Your task to perform on an android device: Go to battery settings Image 0: 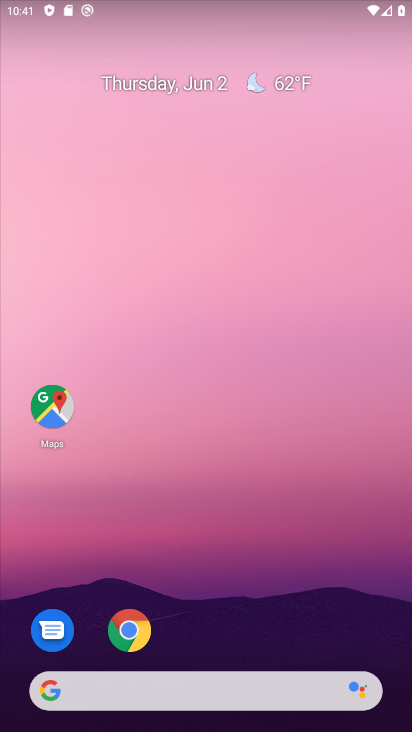
Step 0: press home button
Your task to perform on an android device: Go to battery settings Image 1: 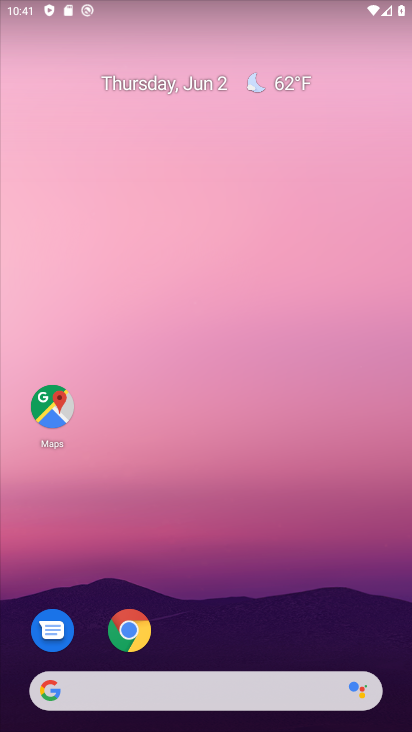
Step 1: drag from (169, 685) to (327, 78)
Your task to perform on an android device: Go to battery settings Image 2: 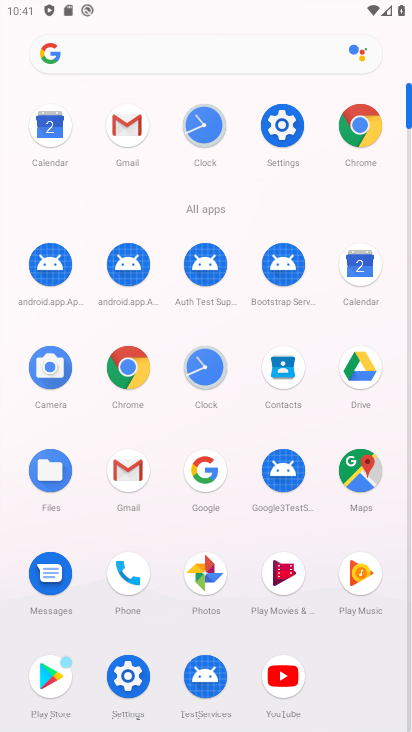
Step 2: click (283, 125)
Your task to perform on an android device: Go to battery settings Image 3: 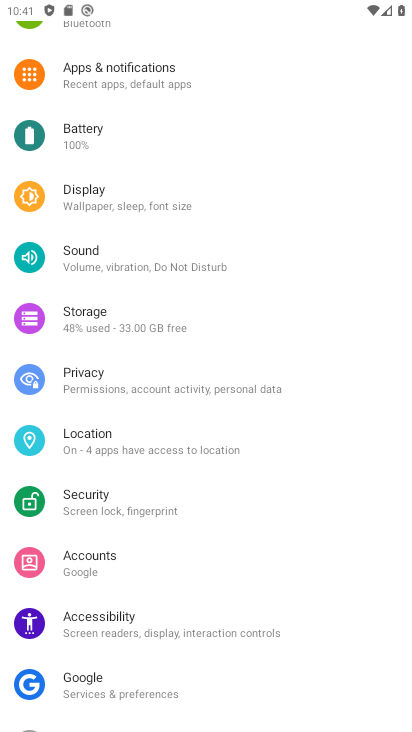
Step 3: click (85, 140)
Your task to perform on an android device: Go to battery settings Image 4: 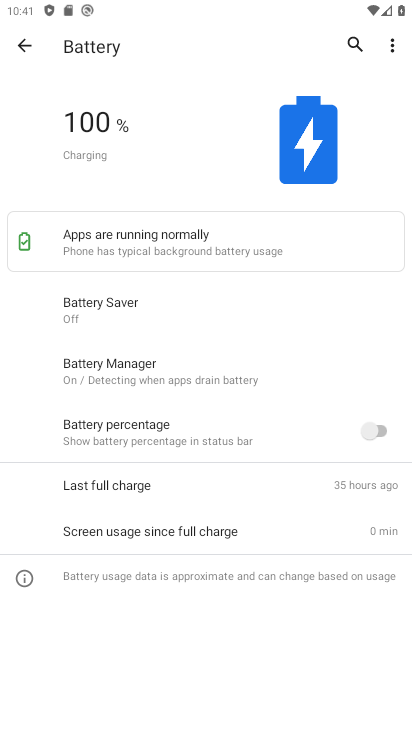
Step 4: task complete